Your task to perform on an android device: Open Google Chrome Image 0: 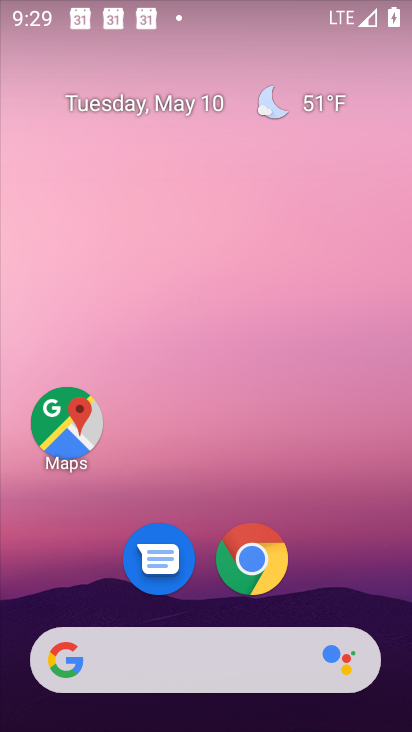
Step 0: click (252, 557)
Your task to perform on an android device: Open Google Chrome Image 1: 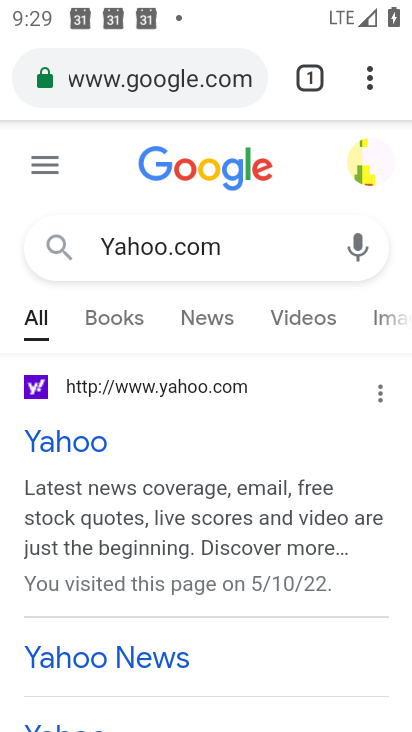
Step 1: task complete